Your task to perform on an android device: open a bookmark in the chrome app Image 0: 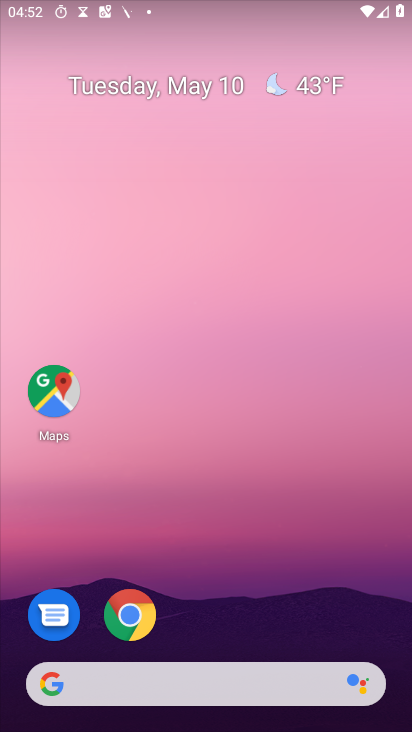
Step 0: drag from (316, 665) to (322, 0)
Your task to perform on an android device: open a bookmark in the chrome app Image 1: 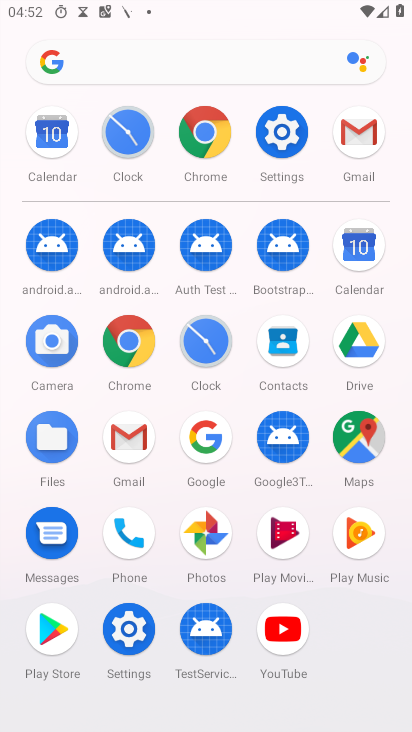
Step 1: click (127, 354)
Your task to perform on an android device: open a bookmark in the chrome app Image 2: 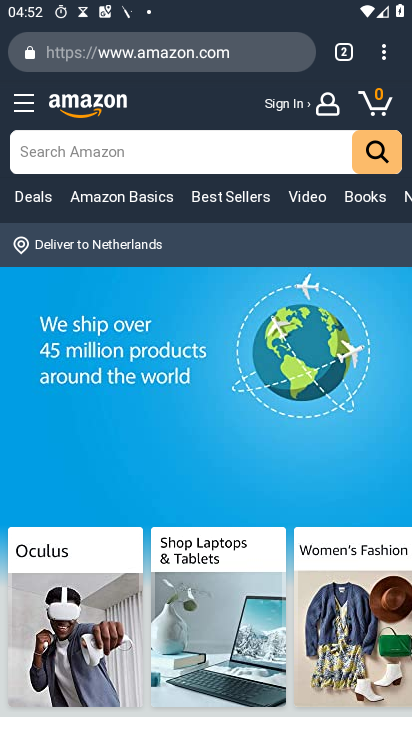
Step 2: click (385, 45)
Your task to perform on an android device: open a bookmark in the chrome app Image 3: 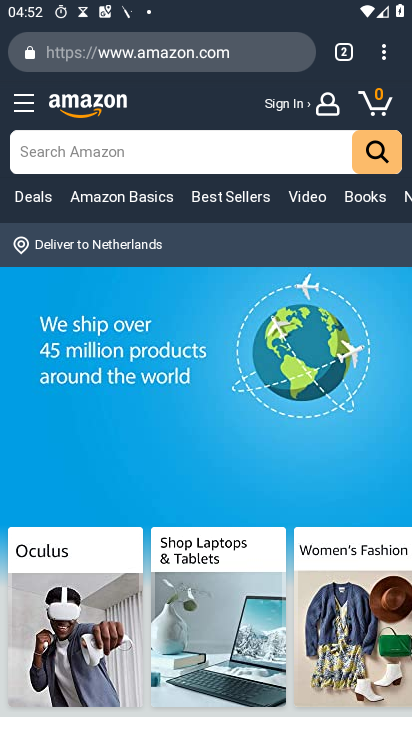
Step 3: task complete